Your task to perform on an android device: When is my next appointment? Image 0: 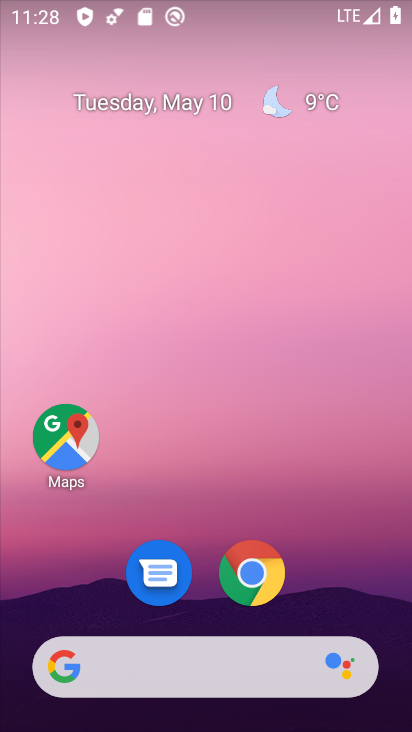
Step 0: drag from (187, 676) to (328, 169)
Your task to perform on an android device: When is my next appointment? Image 1: 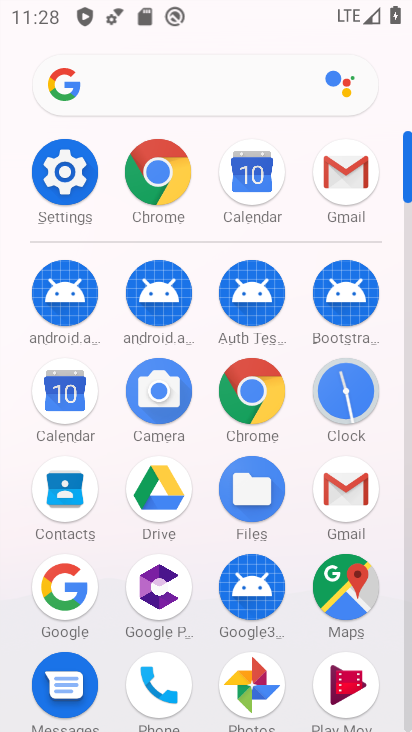
Step 1: click (261, 189)
Your task to perform on an android device: When is my next appointment? Image 2: 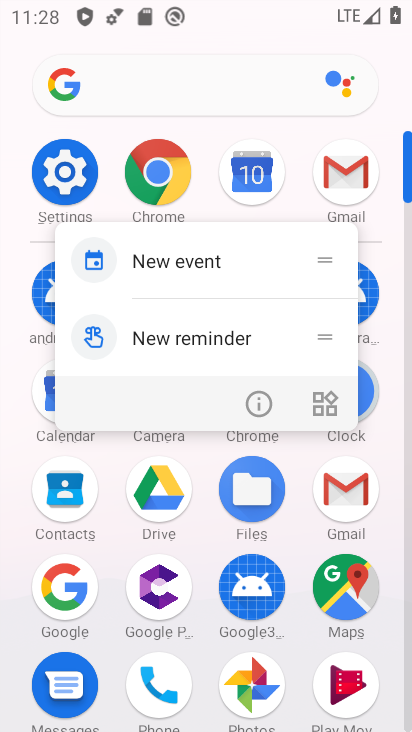
Step 2: click (262, 179)
Your task to perform on an android device: When is my next appointment? Image 3: 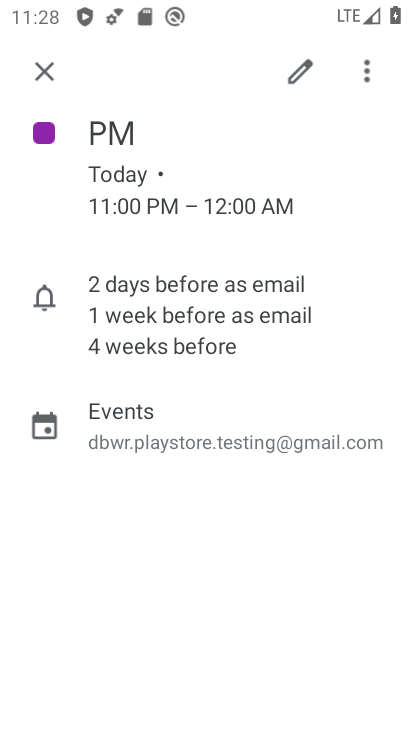
Step 3: task complete